Your task to perform on an android device: set the timer Image 0: 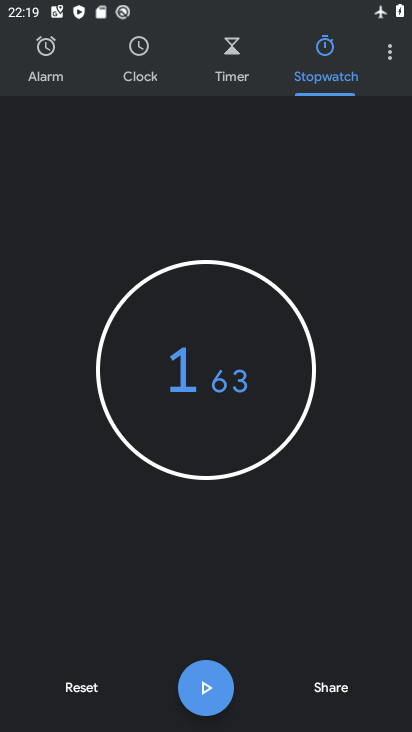
Step 0: click (246, 47)
Your task to perform on an android device: set the timer Image 1: 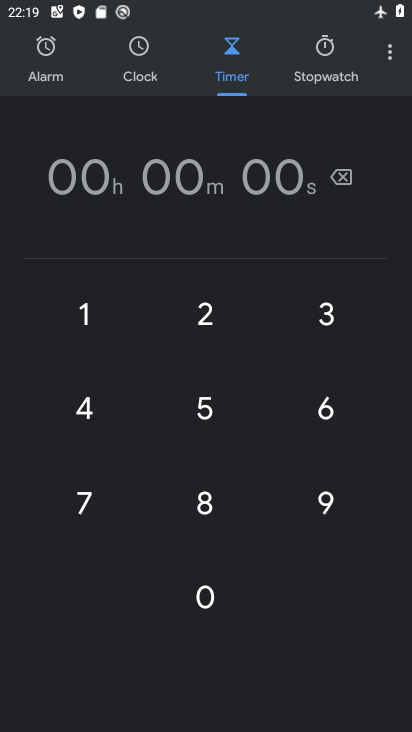
Step 1: click (212, 321)
Your task to perform on an android device: set the timer Image 2: 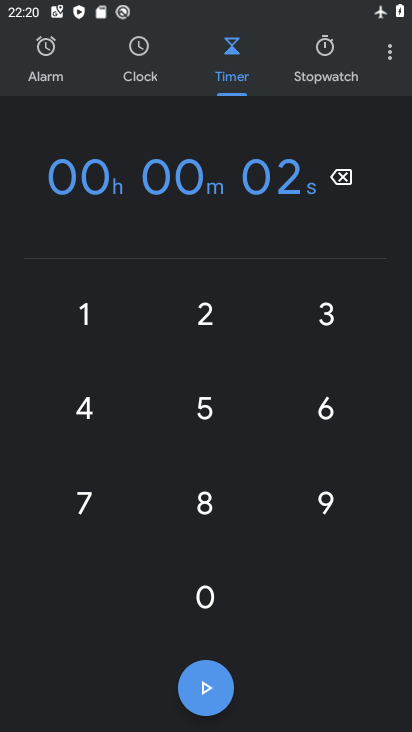
Step 2: task complete